Your task to perform on an android device: toggle show notifications on the lock screen Image 0: 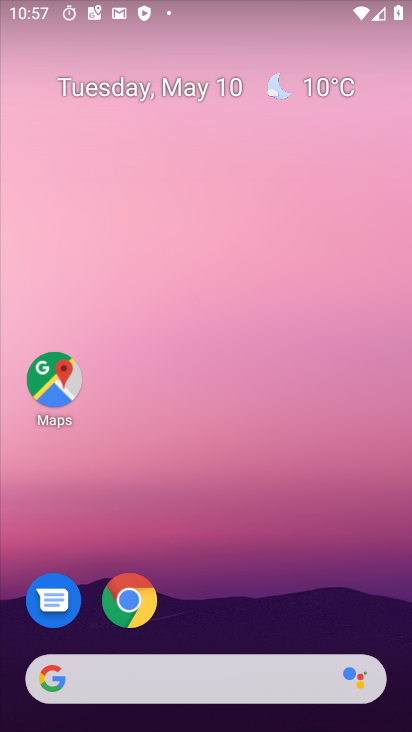
Step 0: drag from (221, 569) to (197, 16)
Your task to perform on an android device: toggle show notifications on the lock screen Image 1: 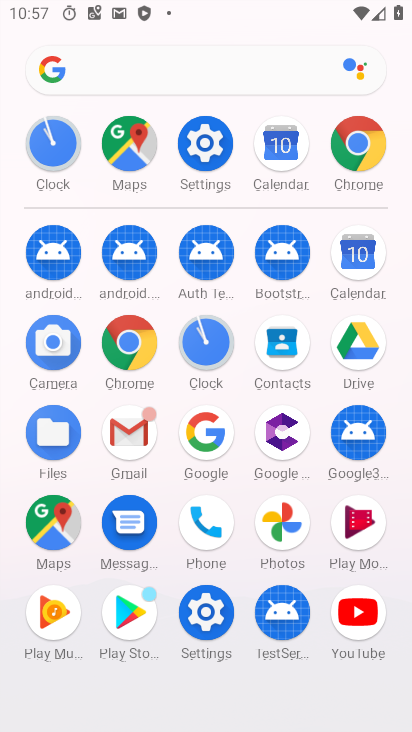
Step 1: click (205, 615)
Your task to perform on an android device: toggle show notifications on the lock screen Image 2: 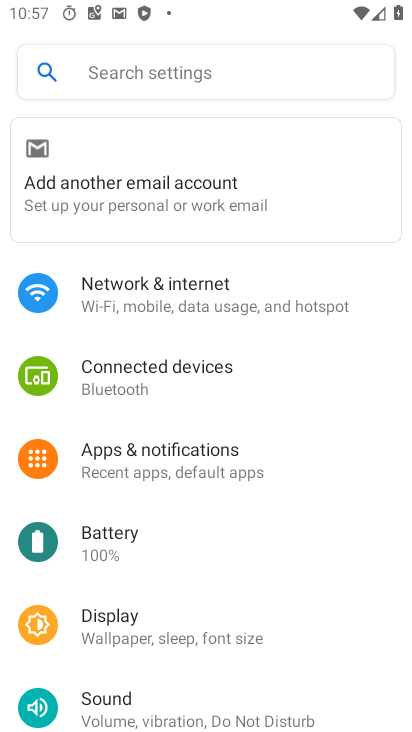
Step 2: drag from (294, 525) to (295, 167)
Your task to perform on an android device: toggle show notifications on the lock screen Image 3: 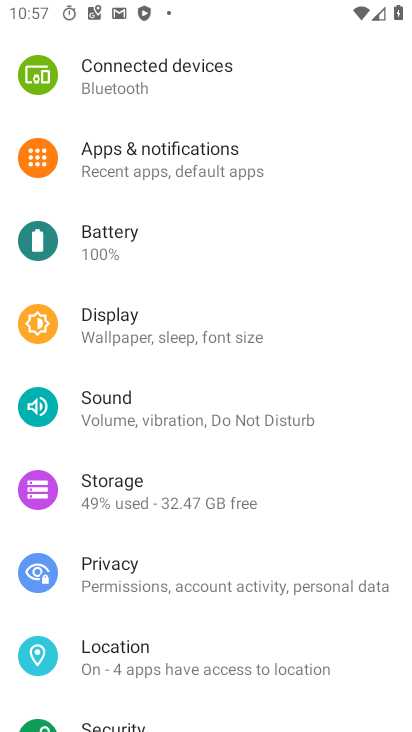
Step 3: drag from (246, 549) to (243, 162)
Your task to perform on an android device: toggle show notifications on the lock screen Image 4: 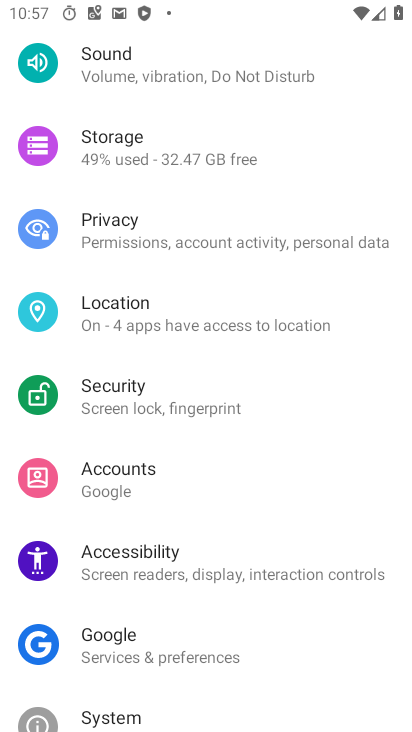
Step 4: drag from (228, 93) to (226, 573)
Your task to perform on an android device: toggle show notifications on the lock screen Image 5: 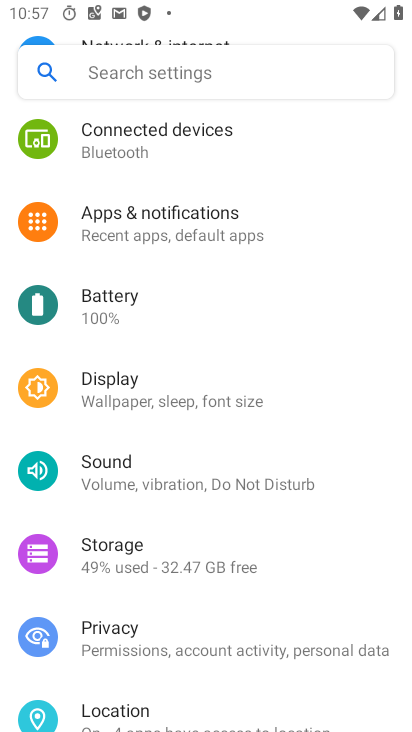
Step 5: click (180, 245)
Your task to perform on an android device: toggle show notifications on the lock screen Image 6: 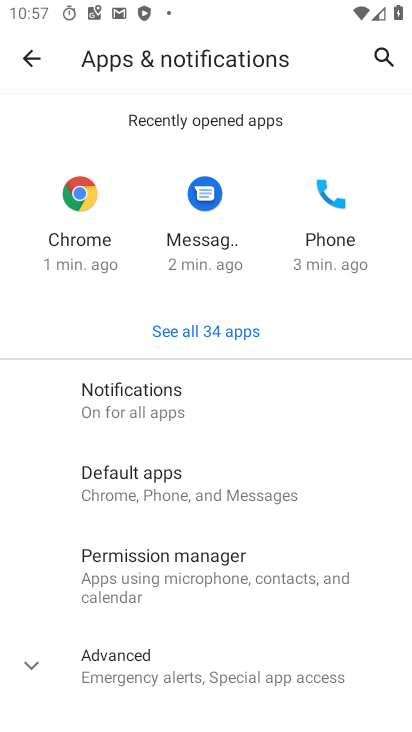
Step 6: click (224, 394)
Your task to perform on an android device: toggle show notifications on the lock screen Image 7: 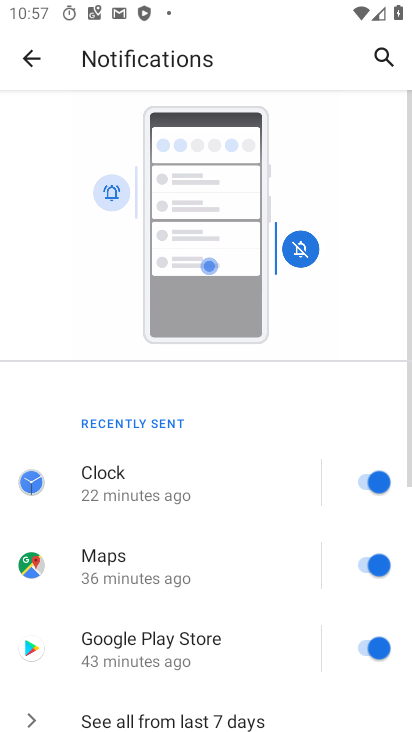
Step 7: drag from (236, 599) to (281, 140)
Your task to perform on an android device: toggle show notifications on the lock screen Image 8: 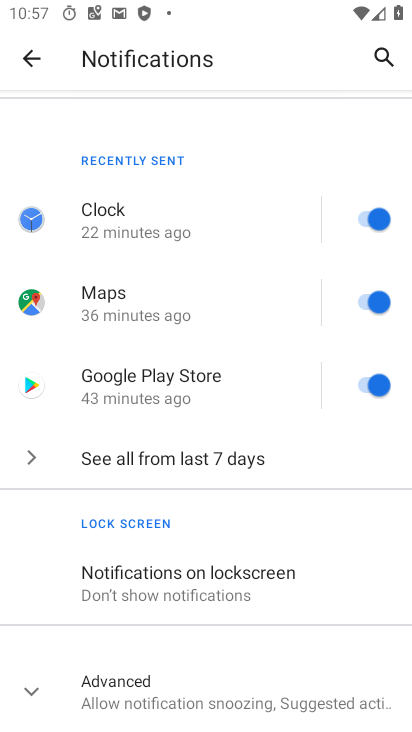
Step 8: click (214, 565)
Your task to perform on an android device: toggle show notifications on the lock screen Image 9: 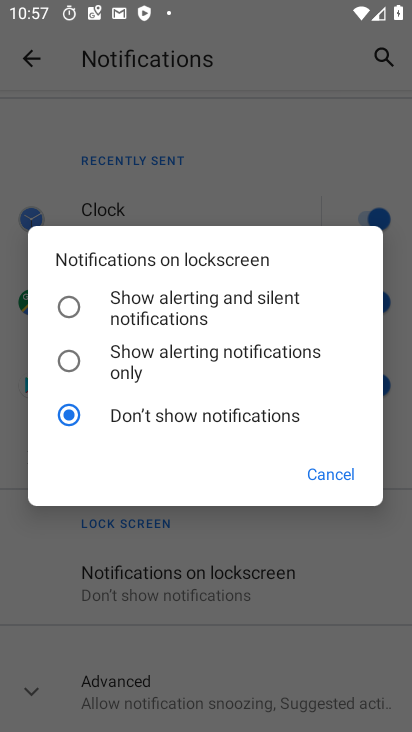
Step 9: click (183, 311)
Your task to perform on an android device: toggle show notifications on the lock screen Image 10: 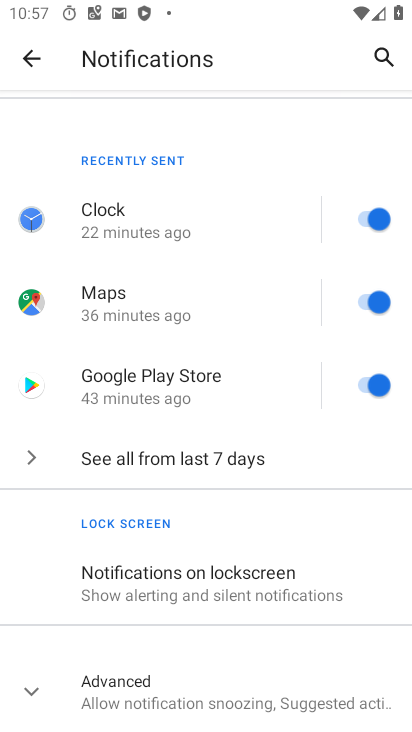
Step 10: task complete